Your task to perform on an android device: toggle wifi Image 0: 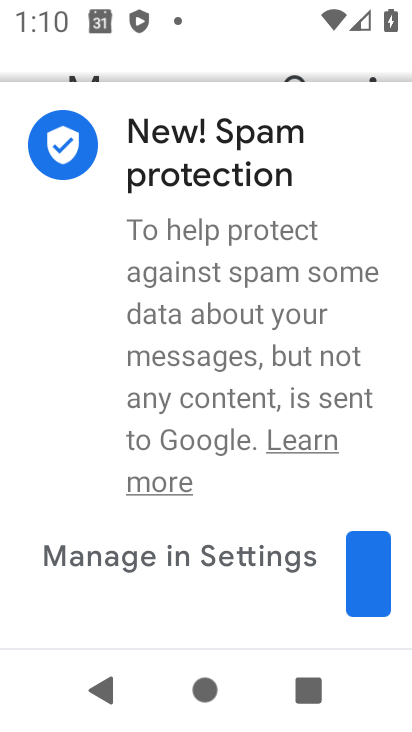
Step 0: press home button
Your task to perform on an android device: toggle wifi Image 1: 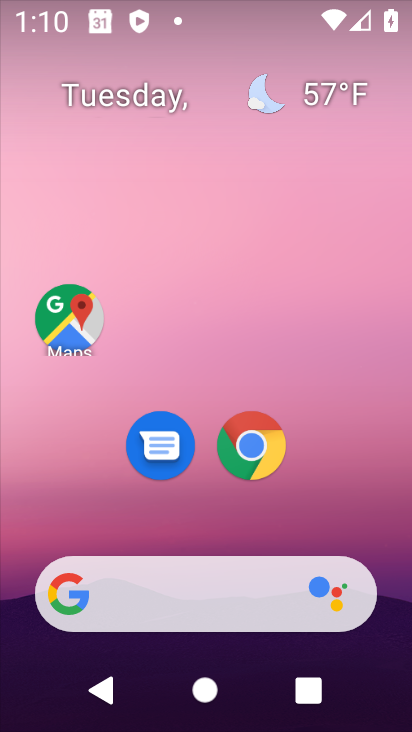
Step 1: drag from (359, 509) to (363, 124)
Your task to perform on an android device: toggle wifi Image 2: 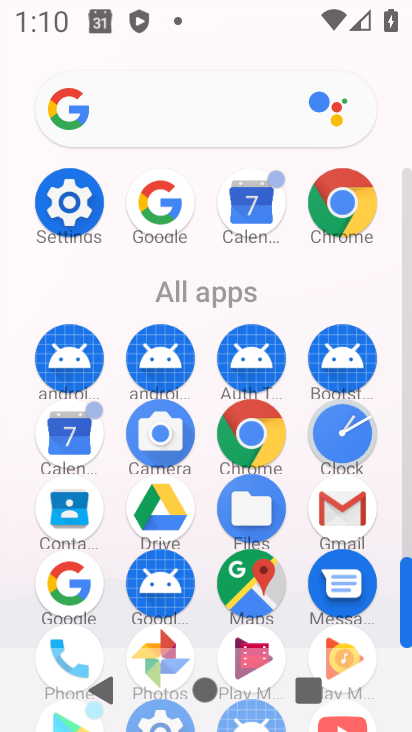
Step 2: click (81, 212)
Your task to perform on an android device: toggle wifi Image 3: 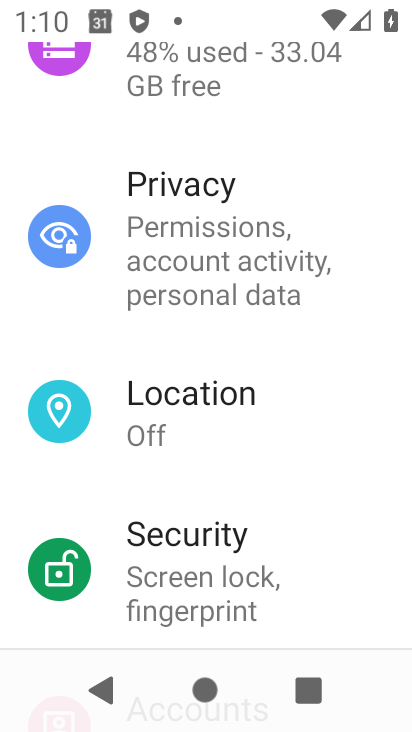
Step 3: drag from (362, 285) to (356, 353)
Your task to perform on an android device: toggle wifi Image 4: 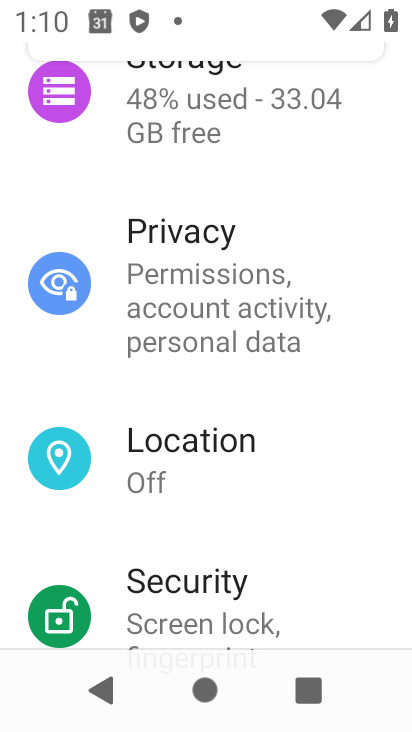
Step 4: drag from (346, 240) to (346, 317)
Your task to perform on an android device: toggle wifi Image 5: 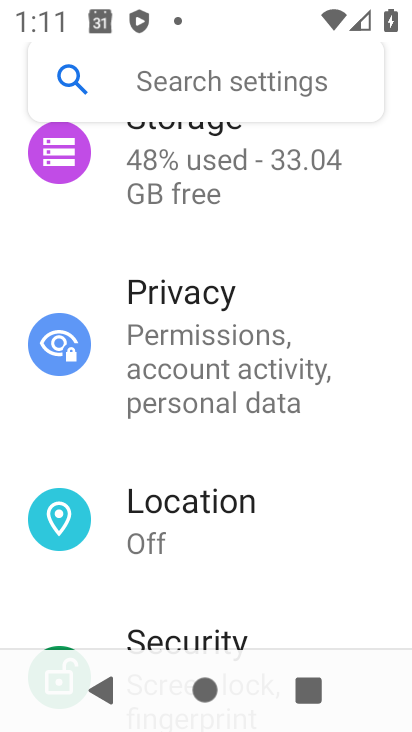
Step 5: drag from (344, 245) to (342, 330)
Your task to perform on an android device: toggle wifi Image 6: 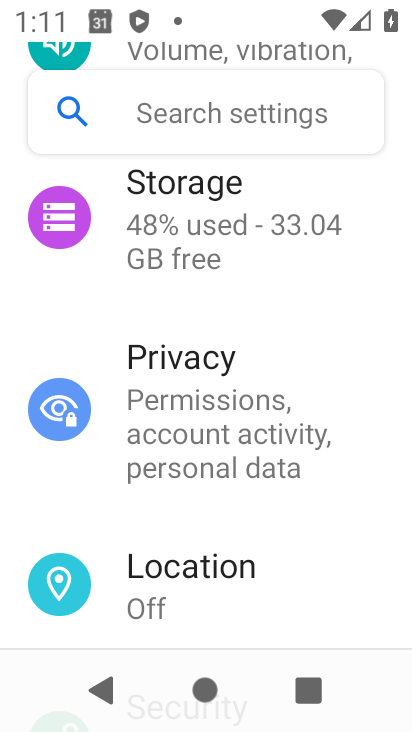
Step 6: drag from (360, 221) to (350, 332)
Your task to perform on an android device: toggle wifi Image 7: 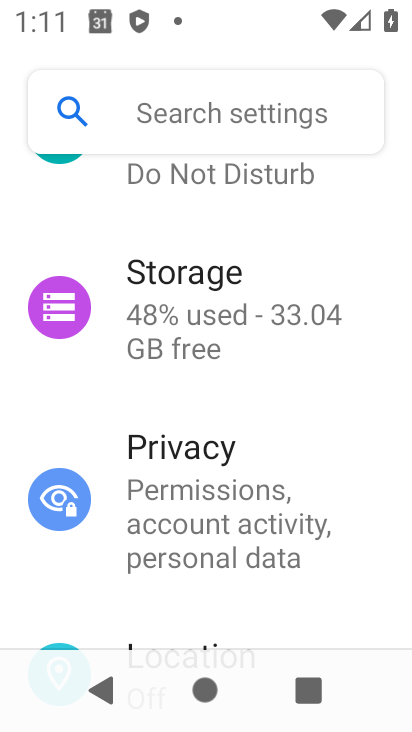
Step 7: drag from (346, 204) to (348, 307)
Your task to perform on an android device: toggle wifi Image 8: 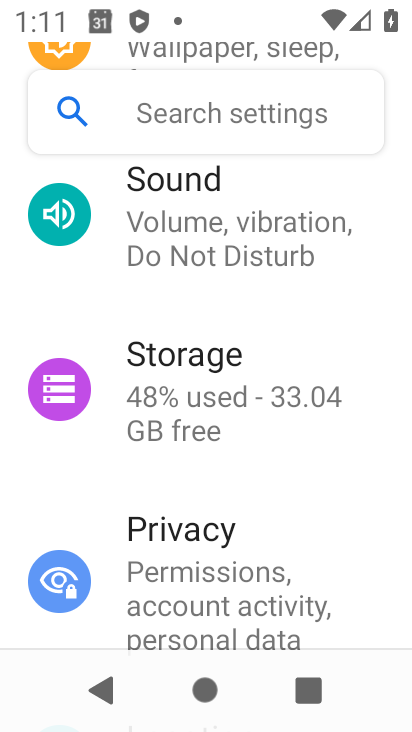
Step 8: drag from (351, 274) to (352, 366)
Your task to perform on an android device: toggle wifi Image 9: 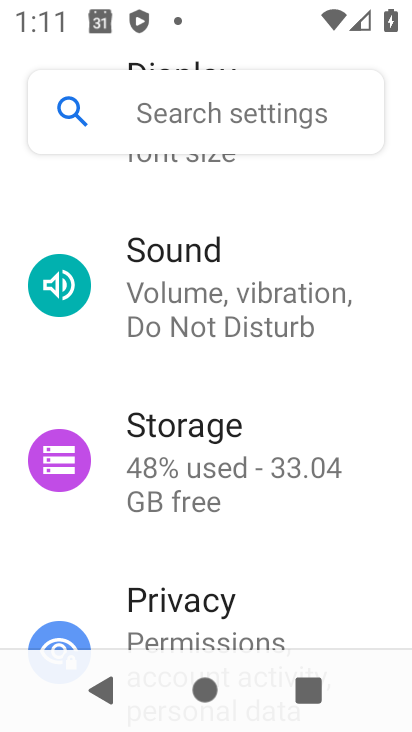
Step 9: drag from (348, 205) to (343, 362)
Your task to perform on an android device: toggle wifi Image 10: 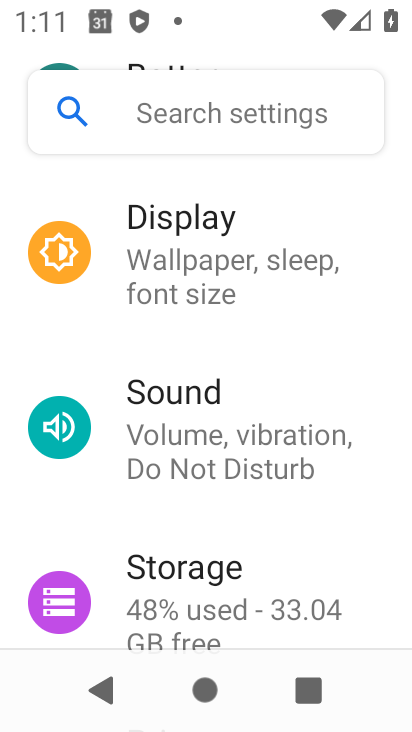
Step 10: drag from (355, 197) to (348, 339)
Your task to perform on an android device: toggle wifi Image 11: 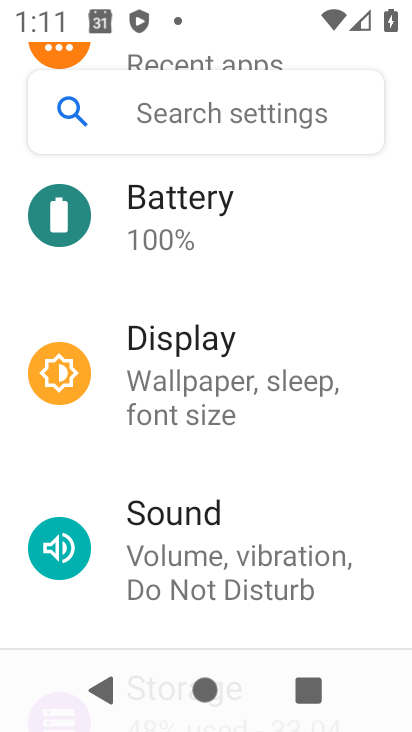
Step 11: drag from (343, 185) to (335, 319)
Your task to perform on an android device: toggle wifi Image 12: 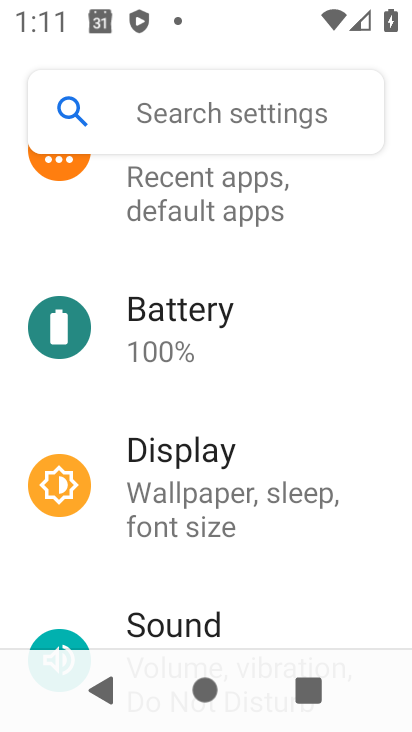
Step 12: drag from (347, 219) to (340, 346)
Your task to perform on an android device: toggle wifi Image 13: 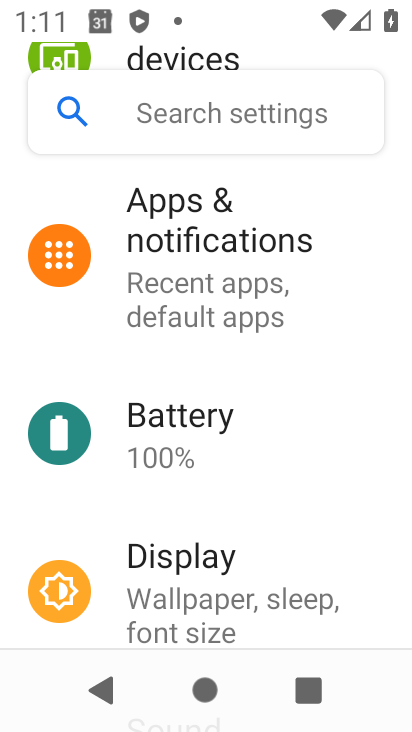
Step 13: drag from (350, 197) to (342, 349)
Your task to perform on an android device: toggle wifi Image 14: 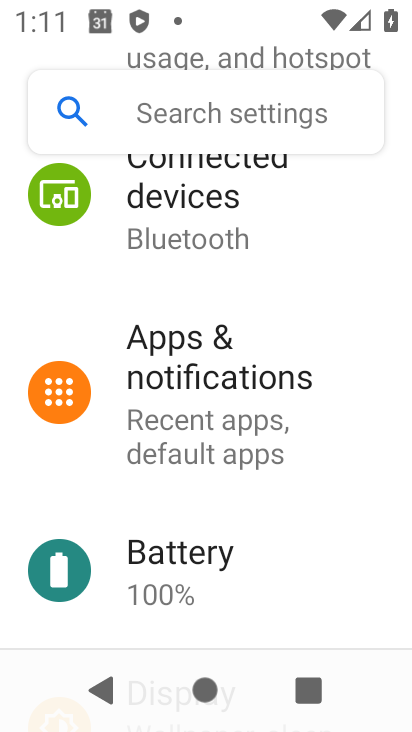
Step 14: drag from (342, 191) to (334, 352)
Your task to perform on an android device: toggle wifi Image 15: 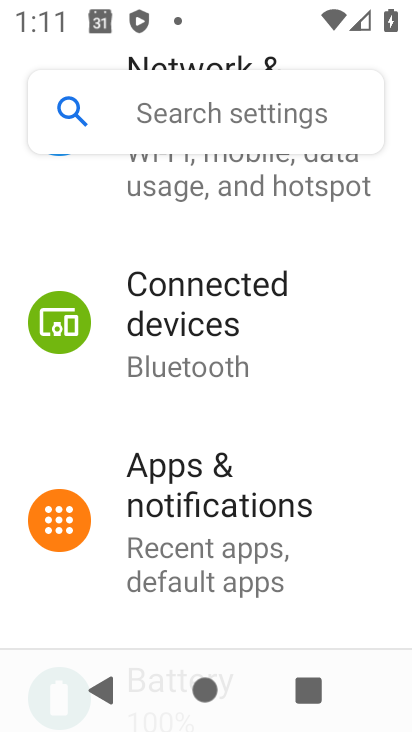
Step 15: drag from (332, 217) to (330, 384)
Your task to perform on an android device: toggle wifi Image 16: 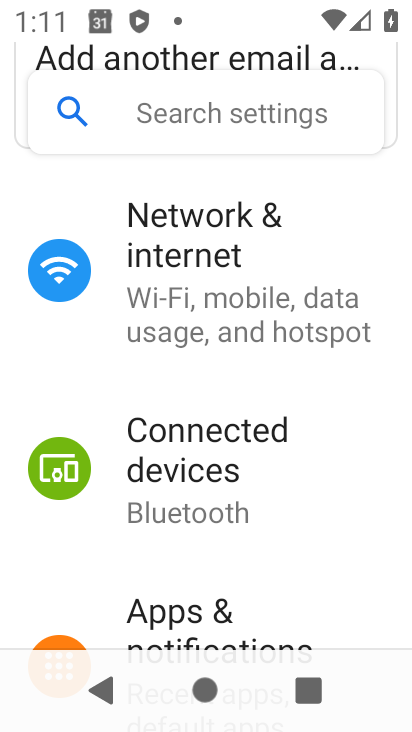
Step 16: drag from (354, 182) to (333, 372)
Your task to perform on an android device: toggle wifi Image 17: 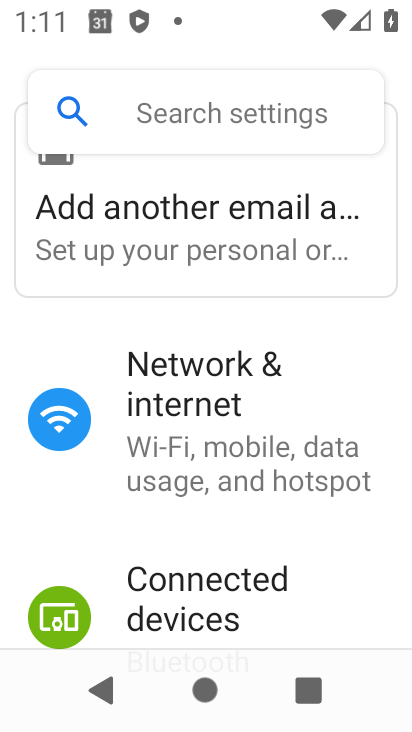
Step 17: click (242, 413)
Your task to perform on an android device: toggle wifi Image 18: 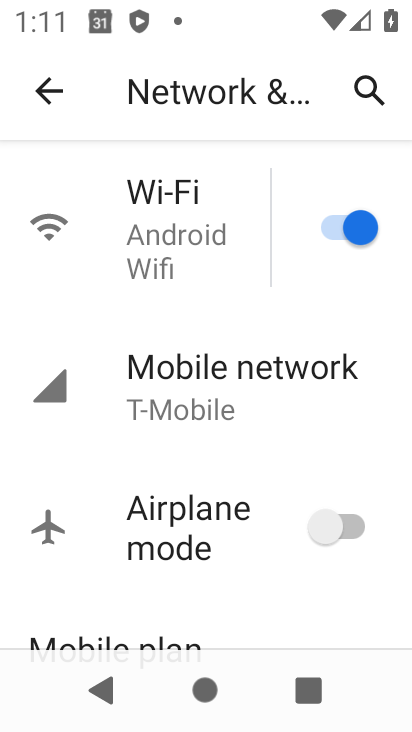
Step 18: click (354, 218)
Your task to perform on an android device: toggle wifi Image 19: 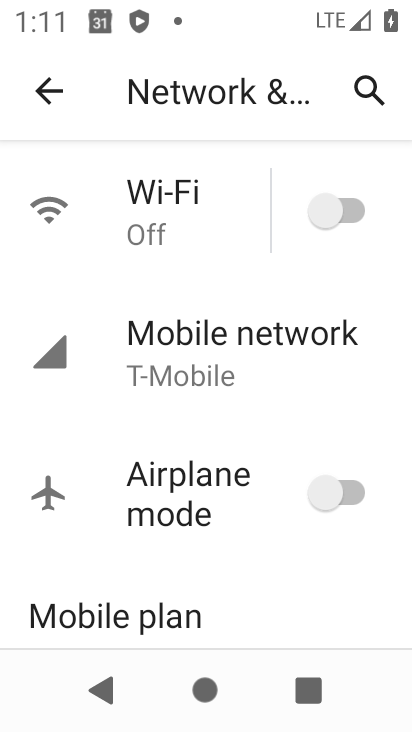
Step 19: task complete